Your task to perform on an android device: turn on sleep mode Image 0: 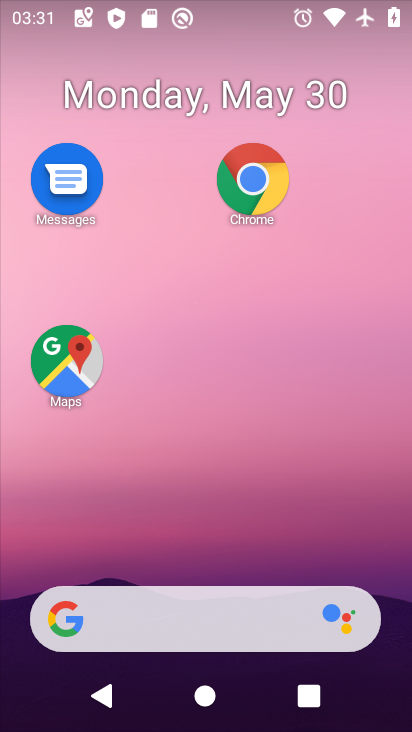
Step 0: drag from (250, 553) to (329, 2)
Your task to perform on an android device: turn on sleep mode Image 1: 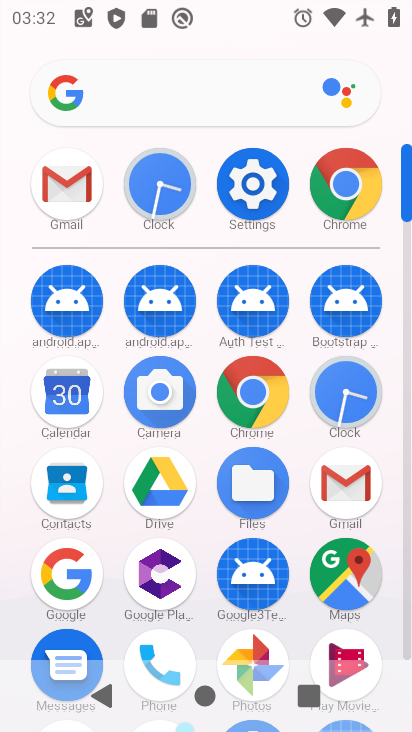
Step 1: task complete